Your task to perform on an android device: turn on sleep mode Image 0: 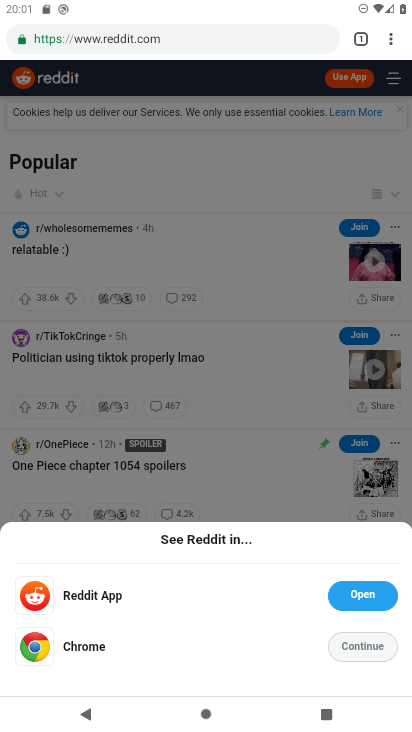
Step 0: press home button
Your task to perform on an android device: turn on sleep mode Image 1: 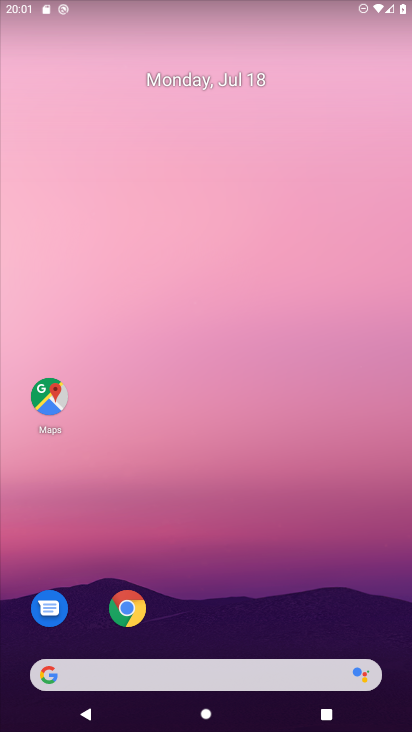
Step 1: drag from (219, 625) to (241, 13)
Your task to perform on an android device: turn on sleep mode Image 2: 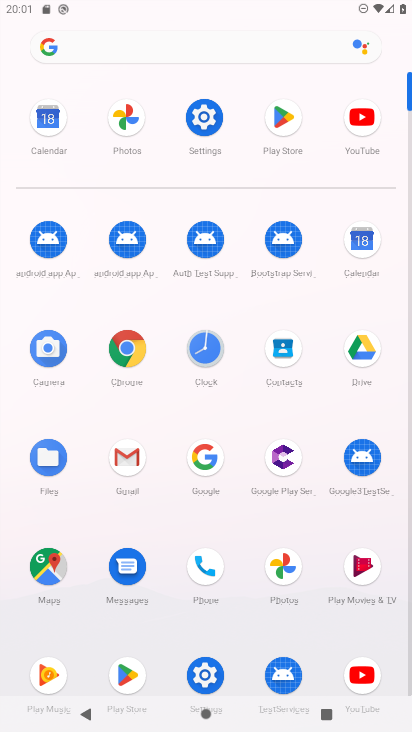
Step 2: click (201, 122)
Your task to perform on an android device: turn on sleep mode Image 3: 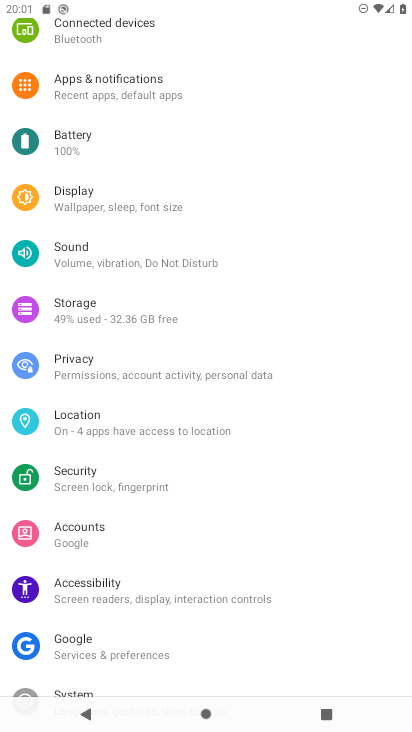
Step 3: click (125, 195)
Your task to perform on an android device: turn on sleep mode Image 4: 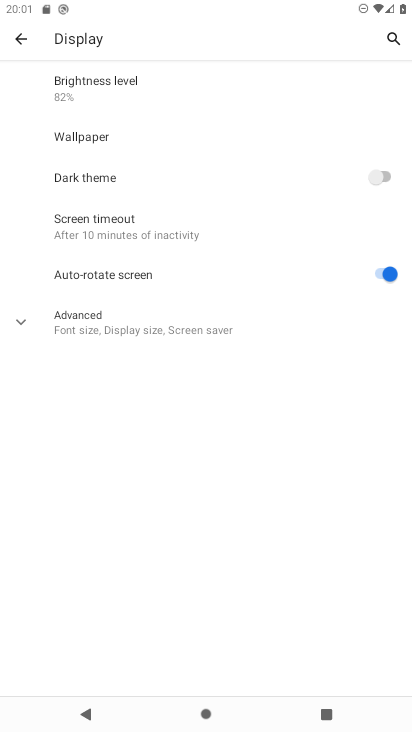
Step 4: click (119, 227)
Your task to perform on an android device: turn on sleep mode Image 5: 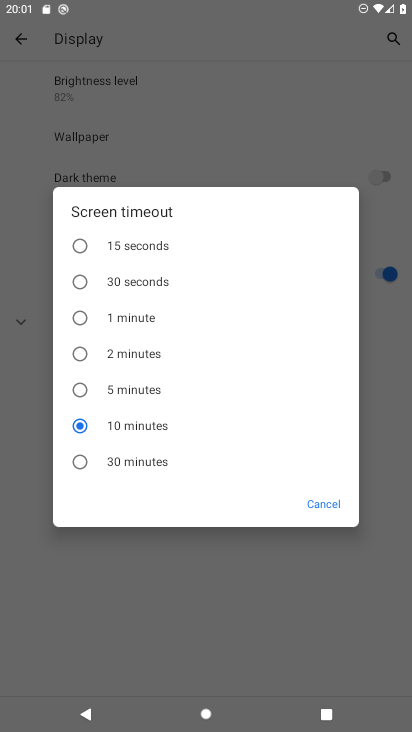
Step 5: task complete